Your task to perform on an android device: Search for hotels in Mexico city Image 0: 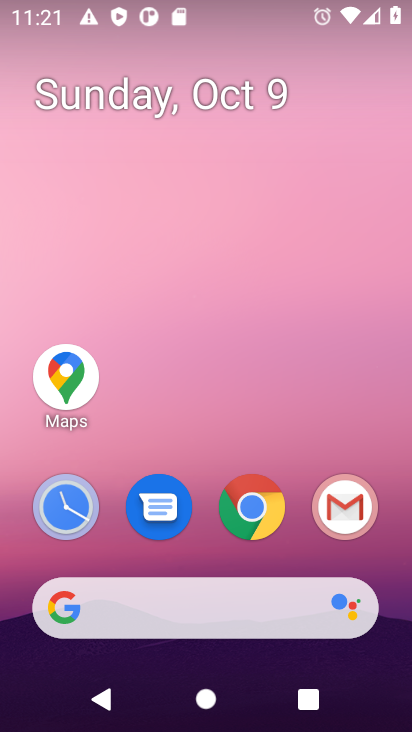
Step 0: click (212, 612)
Your task to perform on an android device: Search for hotels in Mexico city Image 1: 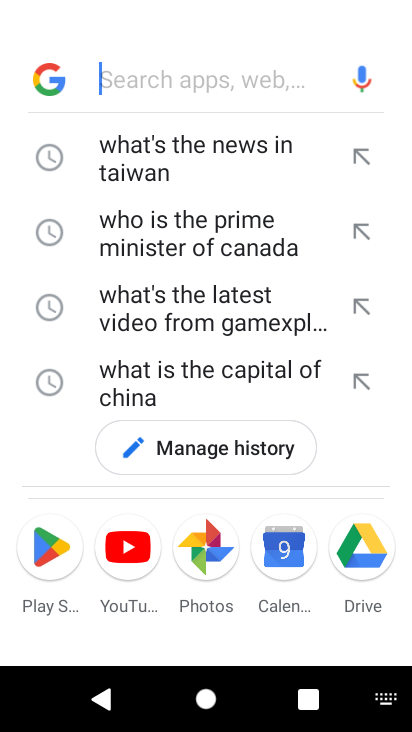
Step 1: type "hotels in Mexico city"
Your task to perform on an android device: Search for hotels in Mexico city Image 2: 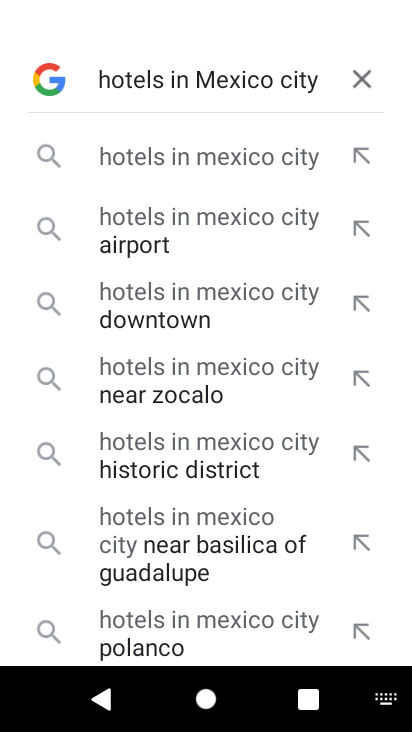
Step 2: press enter
Your task to perform on an android device: Search for hotels in Mexico city Image 3: 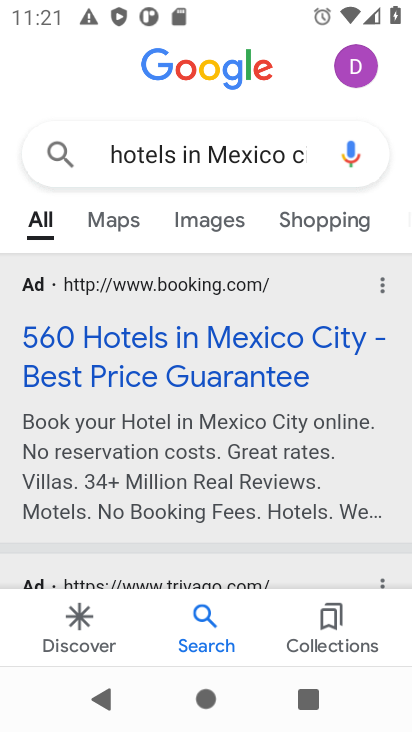
Step 3: click (222, 355)
Your task to perform on an android device: Search for hotels in Mexico city Image 4: 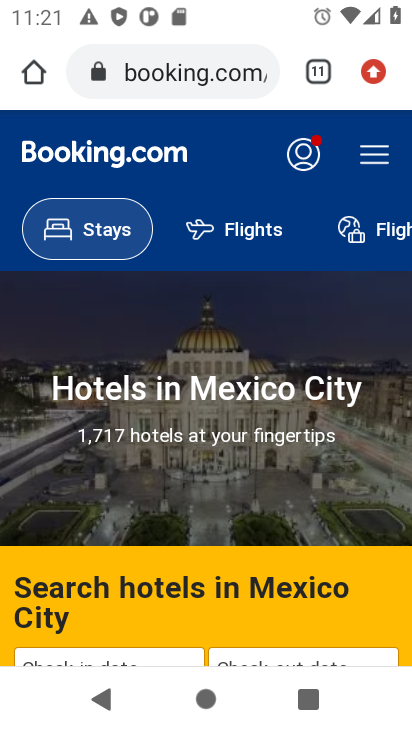
Step 4: task complete